Your task to perform on an android device: Open Youtube and go to "Your channel" Image 0: 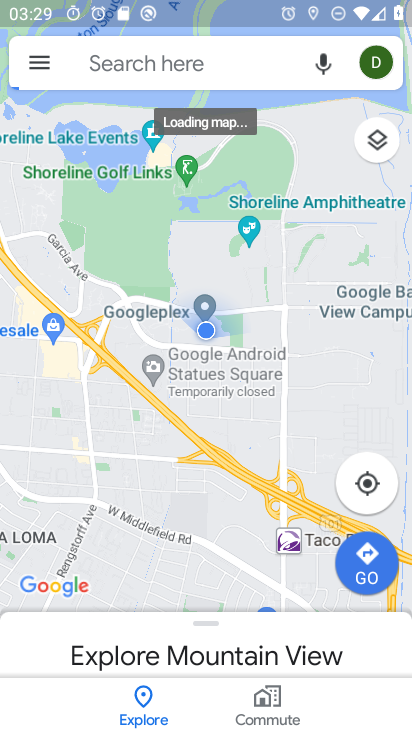
Step 0: press back button
Your task to perform on an android device: Open Youtube and go to "Your channel" Image 1: 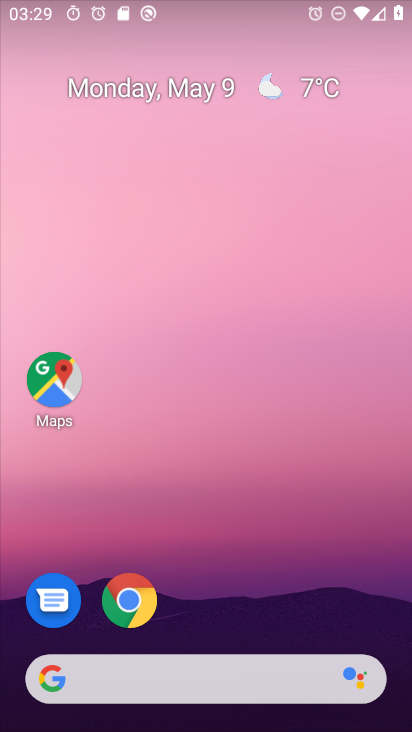
Step 1: drag from (199, 670) to (242, 208)
Your task to perform on an android device: Open Youtube and go to "Your channel" Image 2: 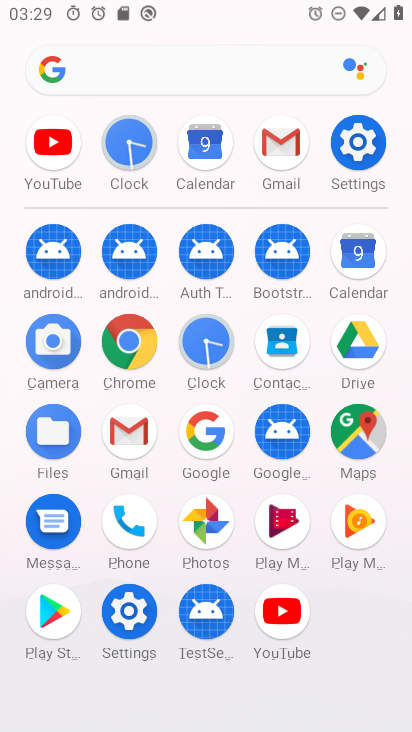
Step 2: click (59, 150)
Your task to perform on an android device: Open Youtube and go to "Your channel" Image 3: 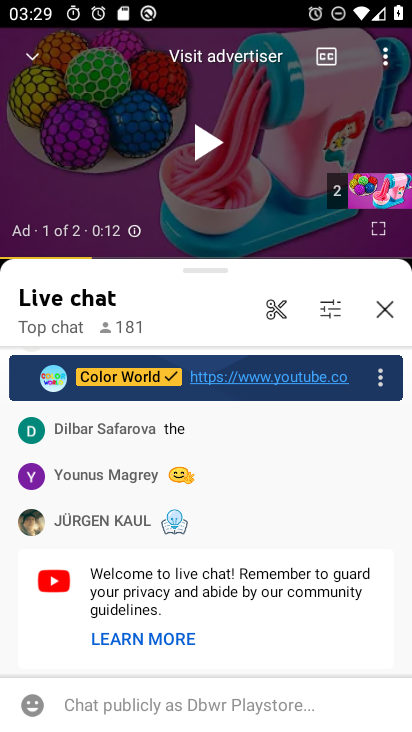
Step 3: press home button
Your task to perform on an android device: Open Youtube and go to "Your channel" Image 4: 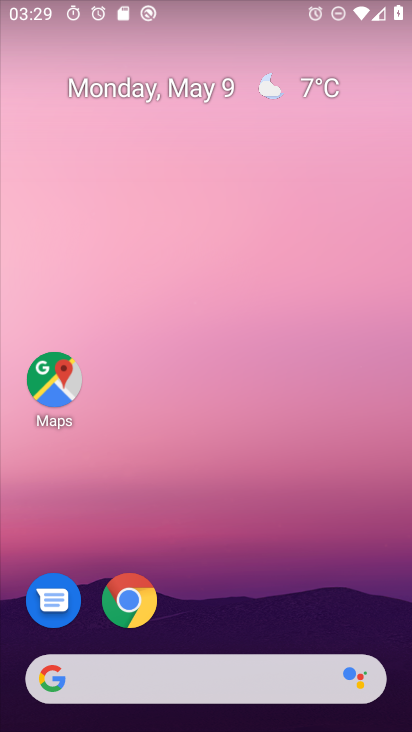
Step 4: drag from (254, 691) to (187, 125)
Your task to perform on an android device: Open Youtube and go to "Your channel" Image 5: 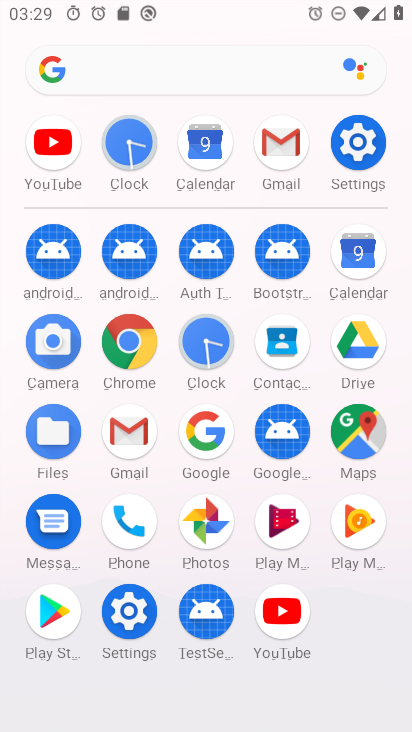
Step 5: click (45, 141)
Your task to perform on an android device: Open Youtube and go to "Your channel" Image 6: 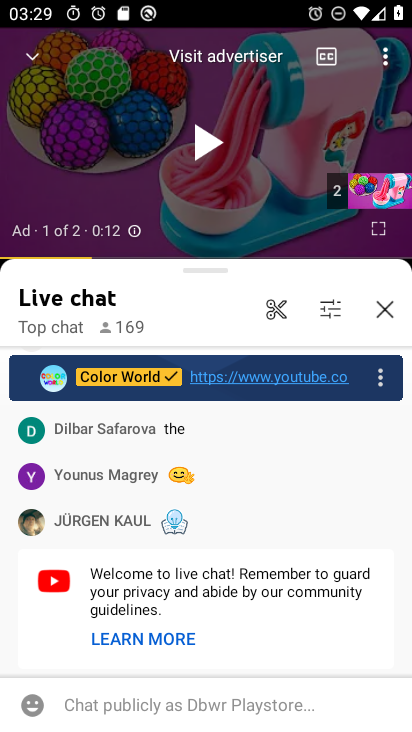
Step 6: click (32, 58)
Your task to perform on an android device: Open Youtube and go to "Your channel" Image 7: 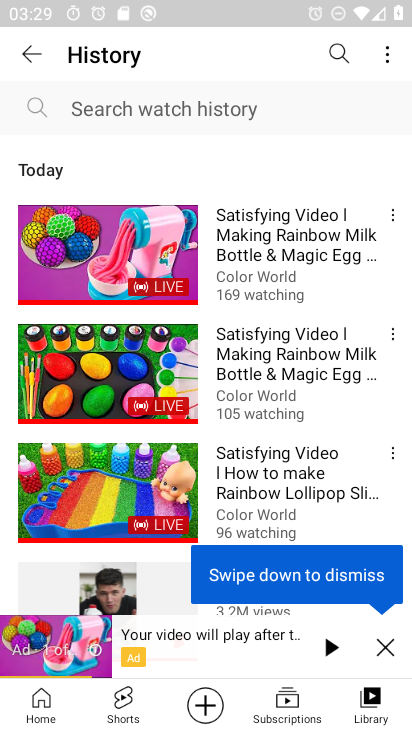
Step 7: click (28, 56)
Your task to perform on an android device: Open Youtube and go to "Your channel" Image 8: 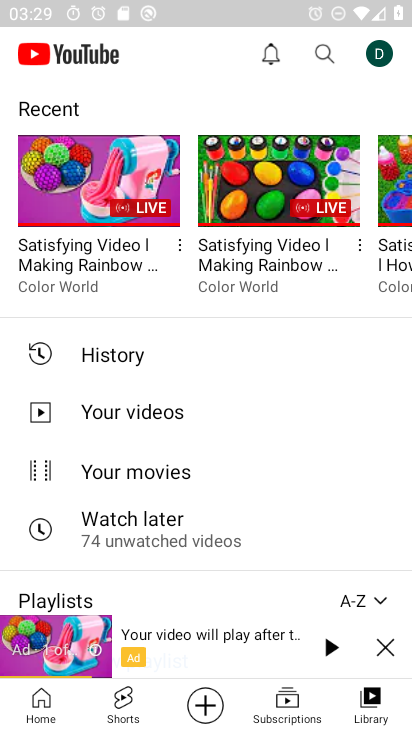
Step 8: click (387, 61)
Your task to perform on an android device: Open Youtube and go to "Your channel" Image 9: 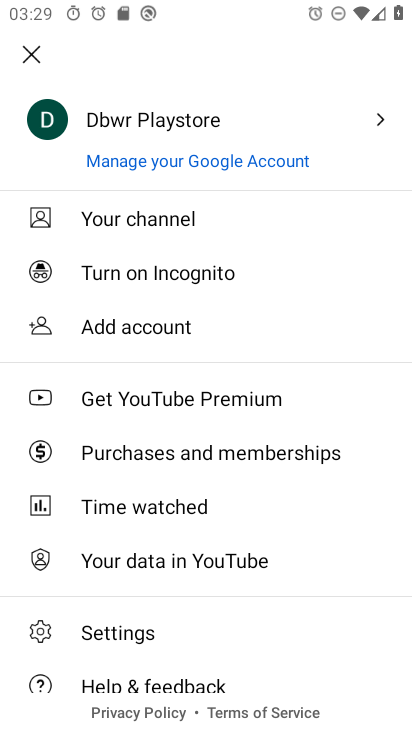
Step 9: click (159, 233)
Your task to perform on an android device: Open Youtube and go to "Your channel" Image 10: 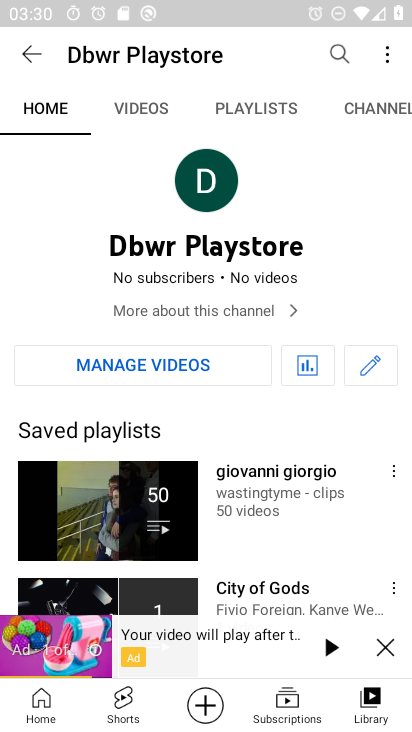
Step 10: task complete